Your task to perform on an android device: Open settings Image 0: 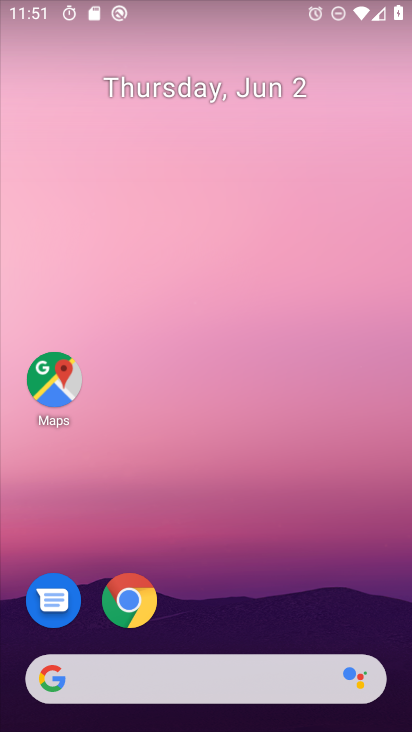
Step 0: drag from (234, 581) to (150, 221)
Your task to perform on an android device: Open settings Image 1: 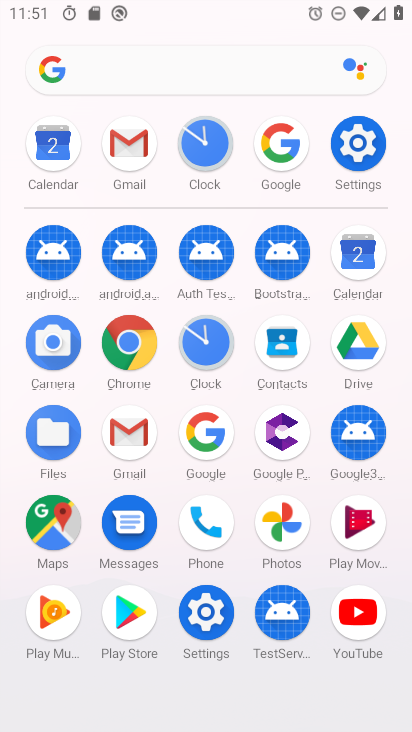
Step 1: click (369, 142)
Your task to perform on an android device: Open settings Image 2: 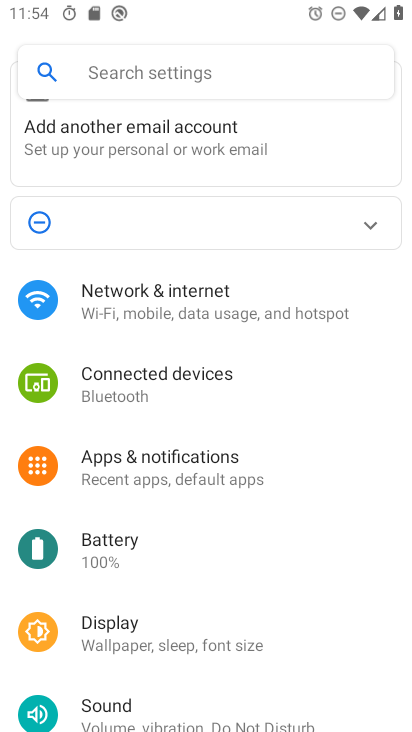
Step 2: task complete